Your task to perform on an android device: Open Google Chrome and open the bookmarks view Image 0: 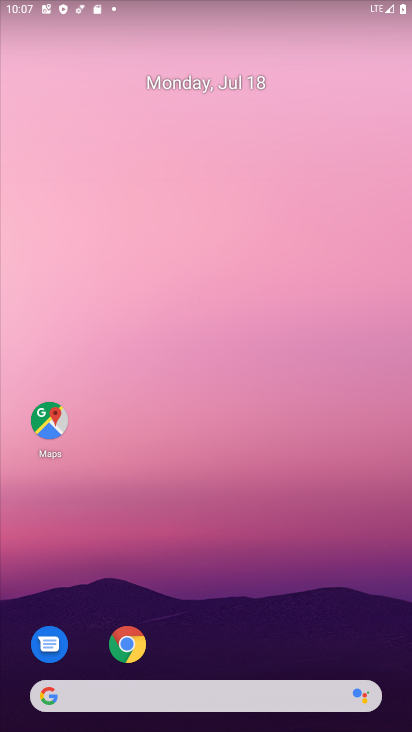
Step 0: drag from (350, 611) to (356, 156)
Your task to perform on an android device: Open Google Chrome and open the bookmarks view Image 1: 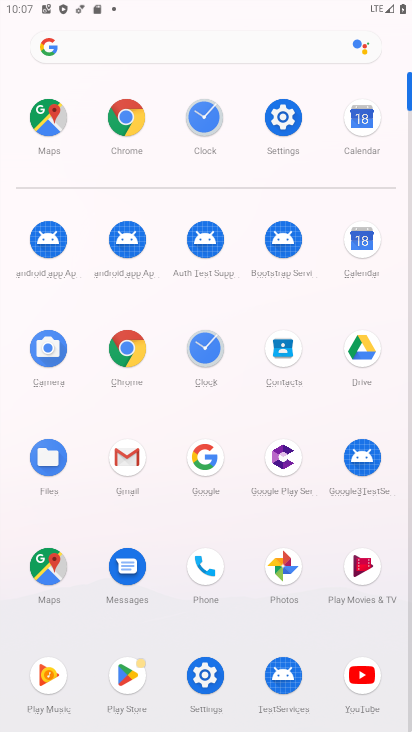
Step 1: click (130, 359)
Your task to perform on an android device: Open Google Chrome and open the bookmarks view Image 2: 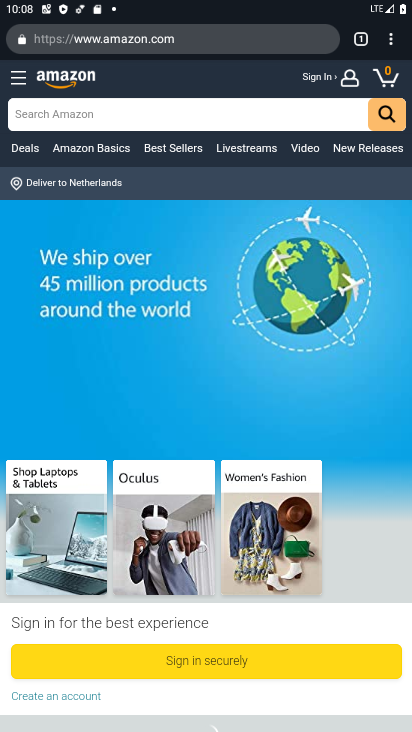
Step 2: click (387, 41)
Your task to perform on an android device: Open Google Chrome and open the bookmarks view Image 3: 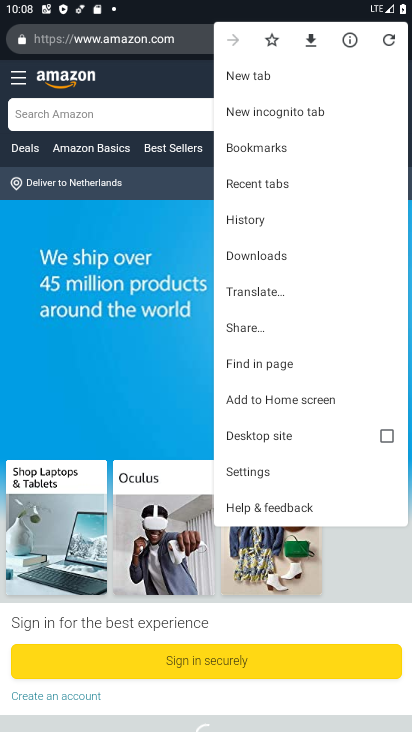
Step 3: click (279, 146)
Your task to perform on an android device: Open Google Chrome and open the bookmarks view Image 4: 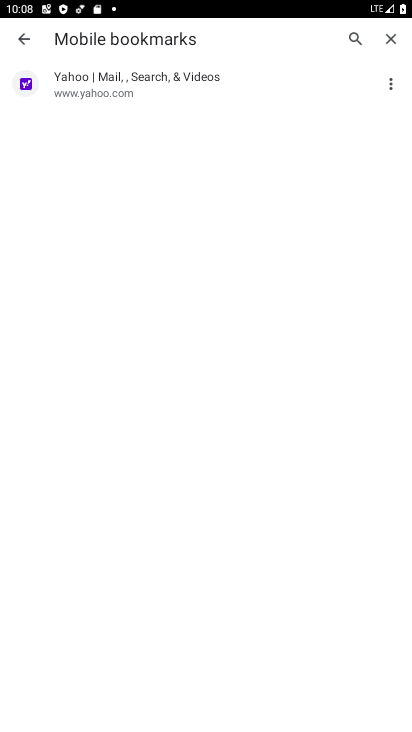
Step 4: task complete